Your task to perform on an android device: turn on the 24-hour format for clock Image 0: 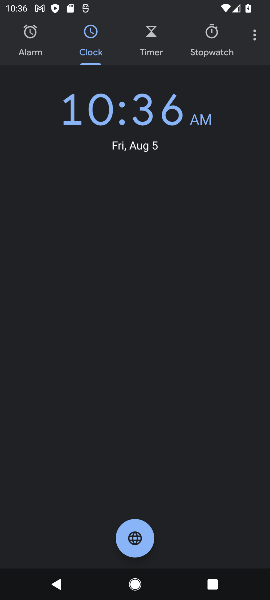
Step 0: press home button
Your task to perform on an android device: turn on the 24-hour format for clock Image 1: 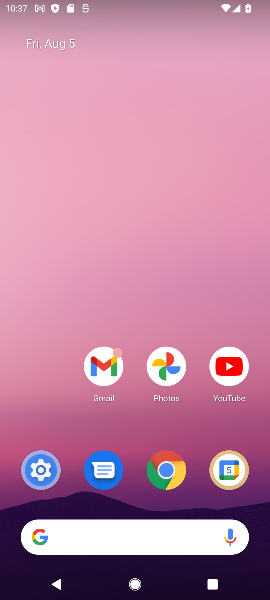
Step 1: drag from (152, 488) to (147, 1)
Your task to perform on an android device: turn on the 24-hour format for clock Image 2: 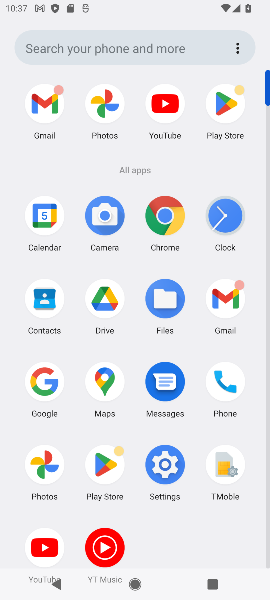
Step 2: click (237, 217)
Your task to perform on an android device: turn on the 24-hour format for clock Image 3: 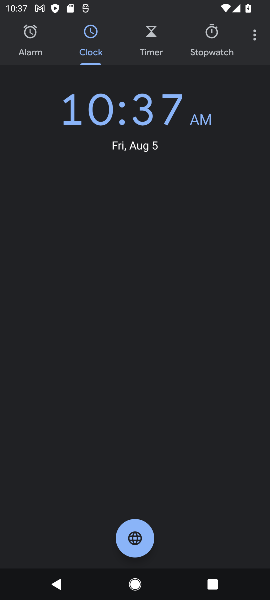
Step 3: click (251, 35)
Your task to perform on an android device: turn on the 24-hour format for clock Image 4: 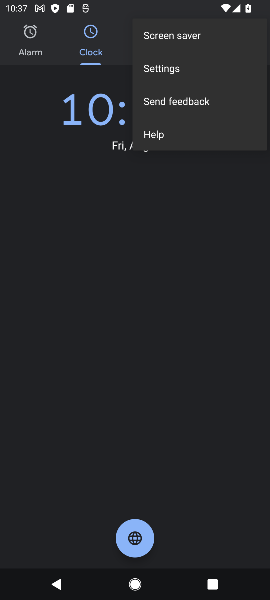
Step 4: click (165, 71)
Your task to perform on an android device: turn on the 24-hour format for clock Image 5: 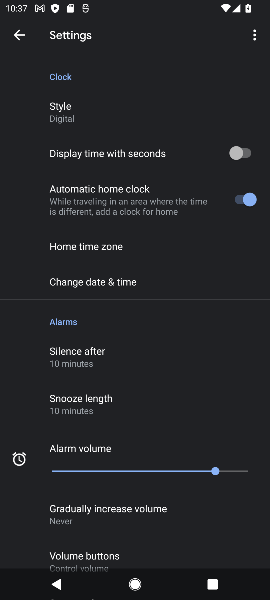
Step 5: drag from (121, 491) to (148, 198)
Your task to perform on an android device: turn on the 24-hour format for clock Image 6: 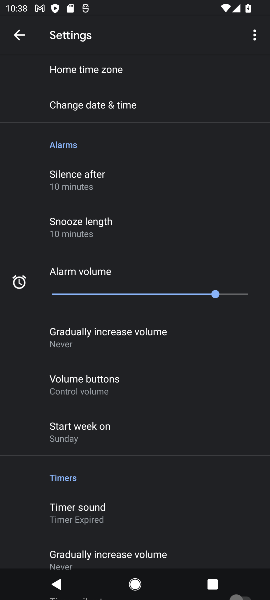
Step 6: drag from (77, 559) to (119, 324)
Your task to perform on an android device: turn on the 24-hour format for clock Image 7: 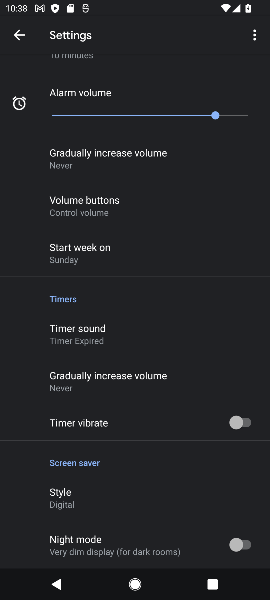
Step 7: drag from (71, 546) to (95, 307)
Your task to perform on an android device: turn on the 24-hour format for clock Image 8: 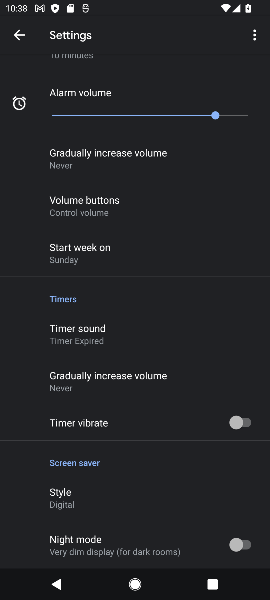
Step 8: drag from (95, 166) to (117, 432)
Your task to perform on an android device: turn on the 24-hour format for clock Image 9: 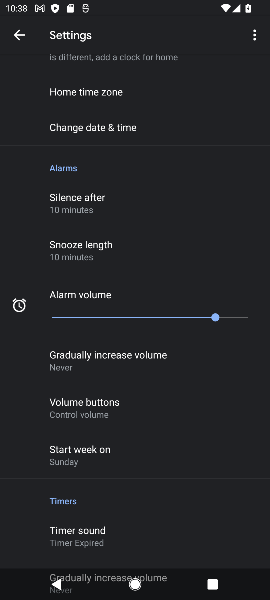
Step 9: click (102, 125)
Your task to perform on an android device: turn on the 24-hour format for clock Image 10: 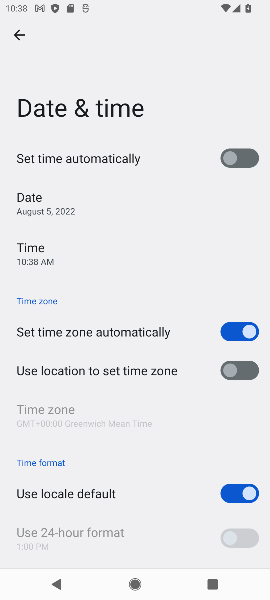
Step 10: drag from (93, 537) to (125, 289)
Your task to perform on an android device: turn on the 24-hour format for clock Image 11: 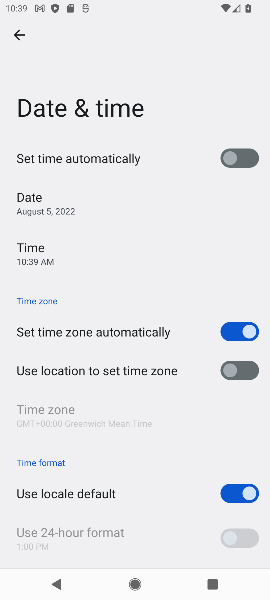
Step 11: click (233, 494)
Your task to perform on an android device: turn on the 24-hour format for clock Image 12: 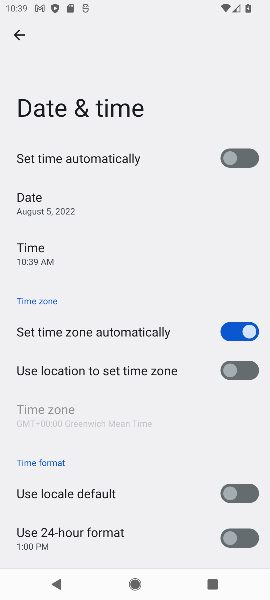
Step 12: click (249, 537)
Your task to perform on an android device: turn on the 24-hour format for clock Image 13: 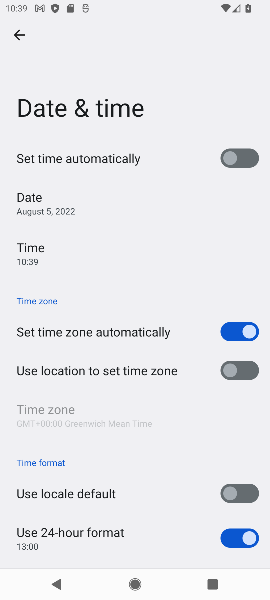
Step 13: task complete